Your task to perform on an android device: Open calendar and show me the first week of next month Image 0: 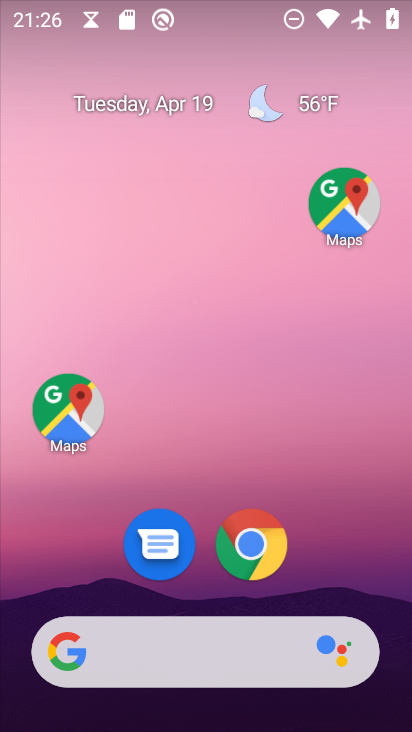
Step 0: press home button
Your task to perform on an android device: Open calendar and show me the first week of next month Image 1: 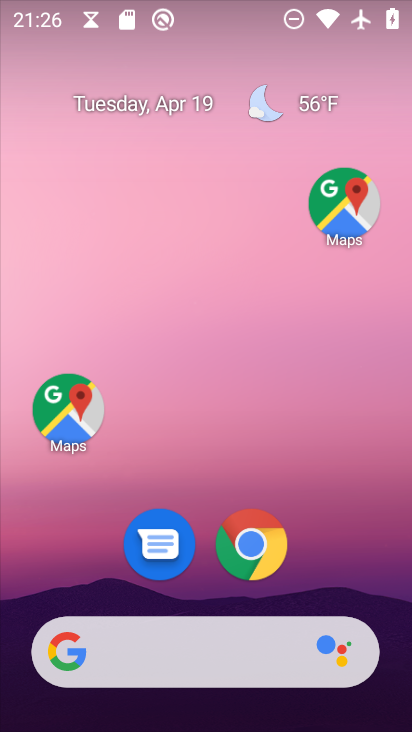
Step 1: drag from (181, 630) to (382, 144)
Your task to perform on an android device: Open calendar and show me the first week of next month Image 2: 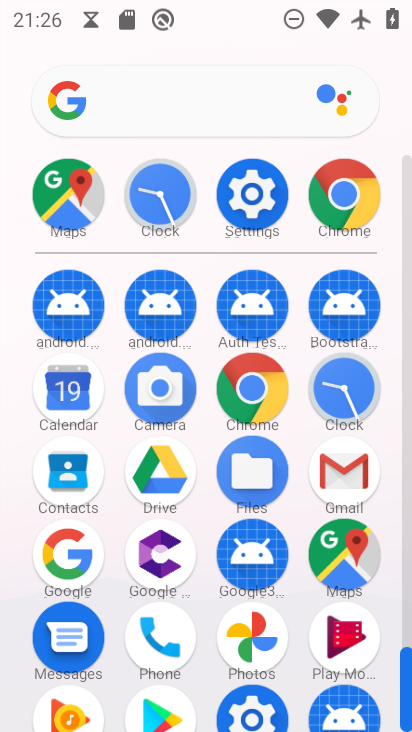
Step 2: click (74, 400)
Your task to perform on an android device: Open calendar and show me the first week of next month Image 3: 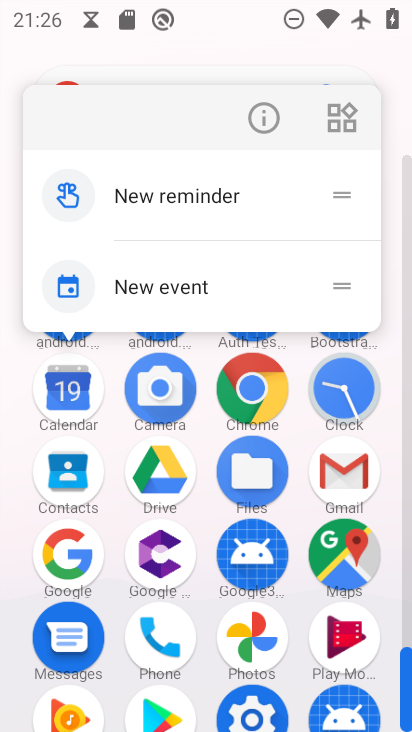
Step 3: click (64, 402)
Your task to perform on an android device: Open calendar and show me the first week of next month Image 4: 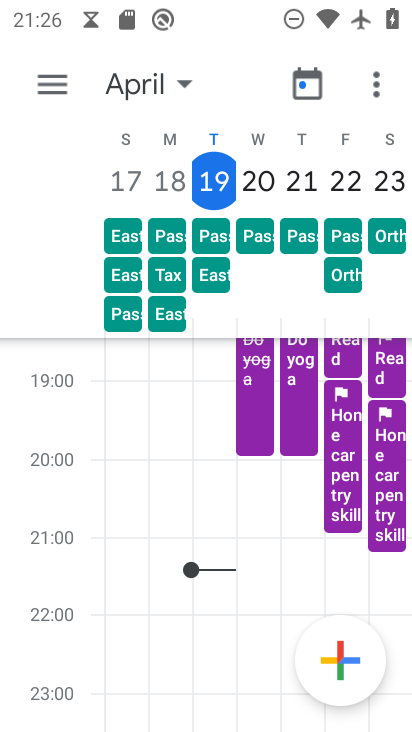
Step 4: click (129, 83)
Your task to perform on an android device: Open calendar and show me the first week of next month Image 5: 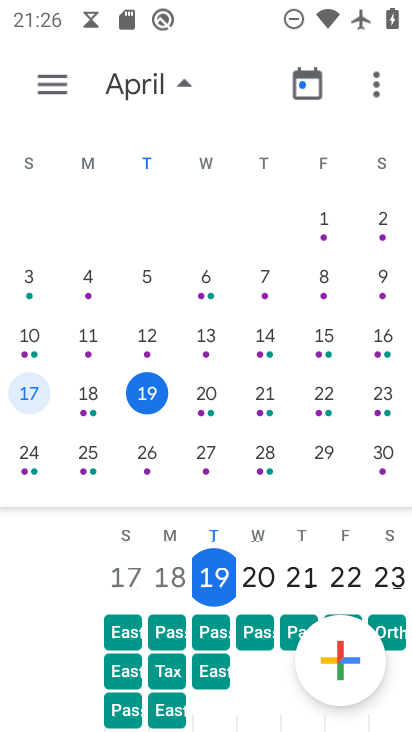
Step 5: drag from (332, 372) to (15, 323)
Your task to perform on an android device: Open calendar and show me the first week of next month Image 6: 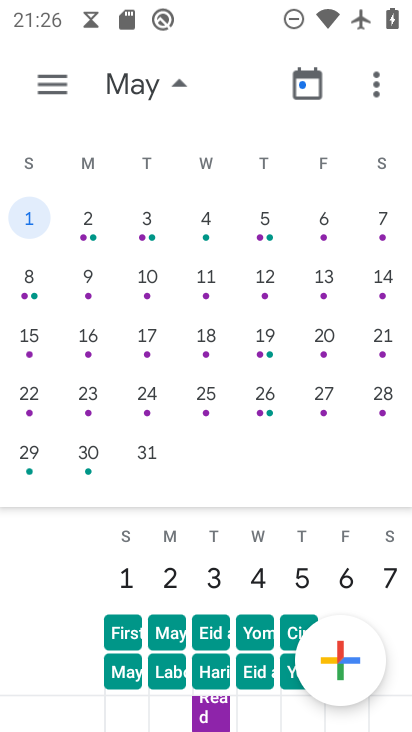
Step 6: click (55, 83)
Your task to perform on an android device: Open calendar and show me the first week of next month Image 7: 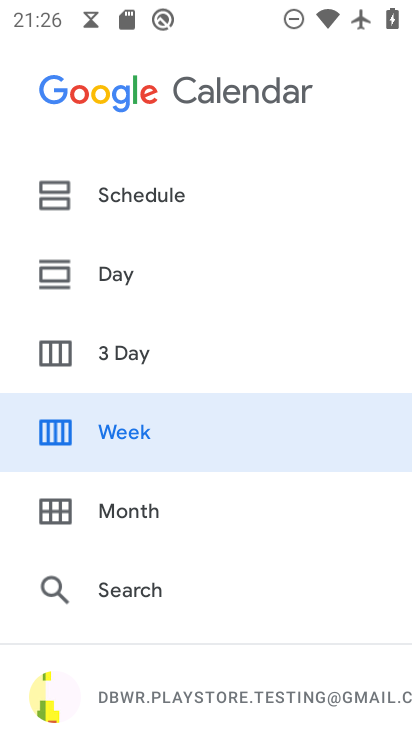
Step 7: click (122, 428)
Your task to perform on an android device: Open calendar and show me the first week of next month Image 8: 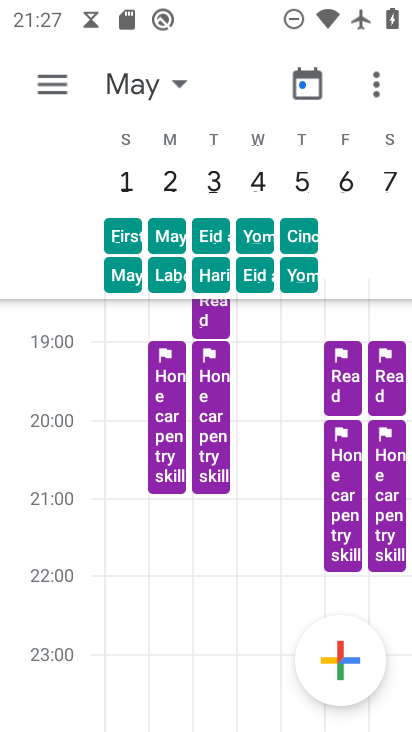
Step 8: task complete